Your task to perform on an android device: show emergency info Image 0: 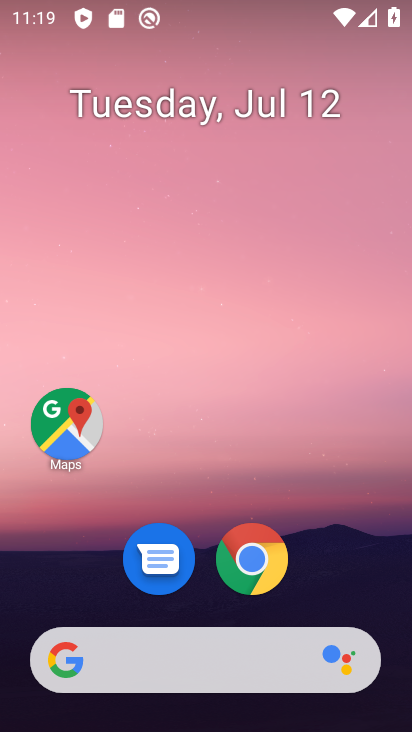
Step 0: drag from (284, 362) to (316, 252)
Your task to perform on an android device: show emergency info Image 1: 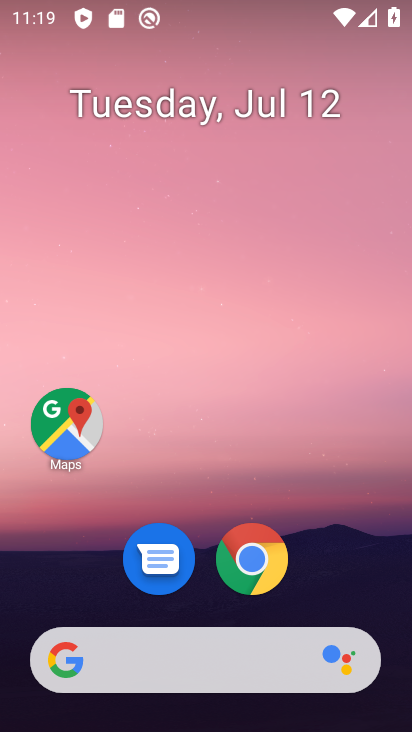
Step 1: drag from (220, 676) to (391, 185)
Your task to perform on an android device: show emergency info Image 2: 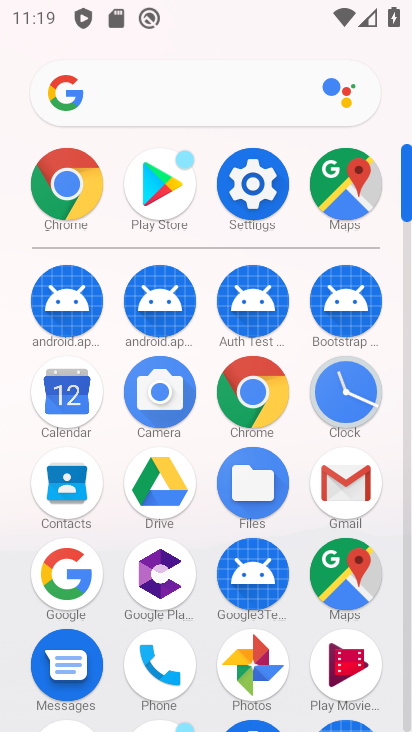
Step 2: click (239, 195)
Your task to perform on an android device: show emergency info Image 3: 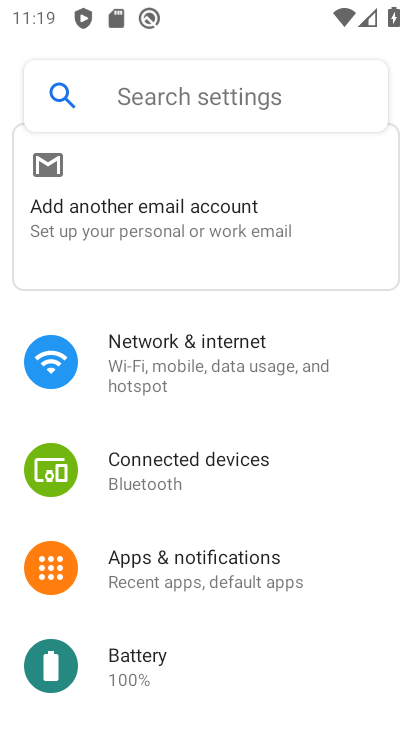
Step 3: drag from (164, 574) to (242, 178)
Your task to perform on an android device: show emergency info Image 4: 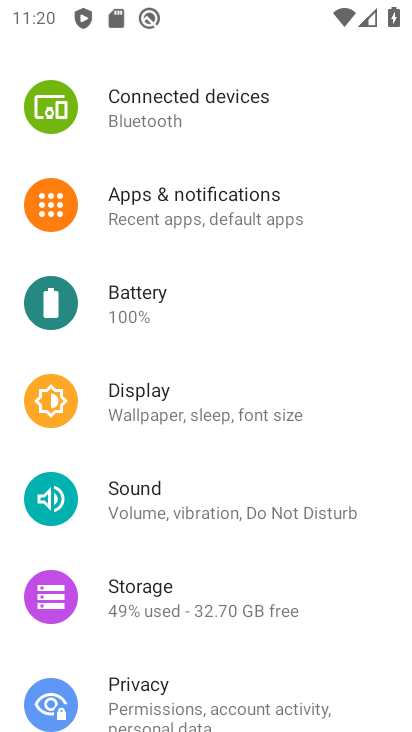
Step 4: drag from (255, 607) to (317, 269)
Your task to perform on an android device: show emergency info Image 5: 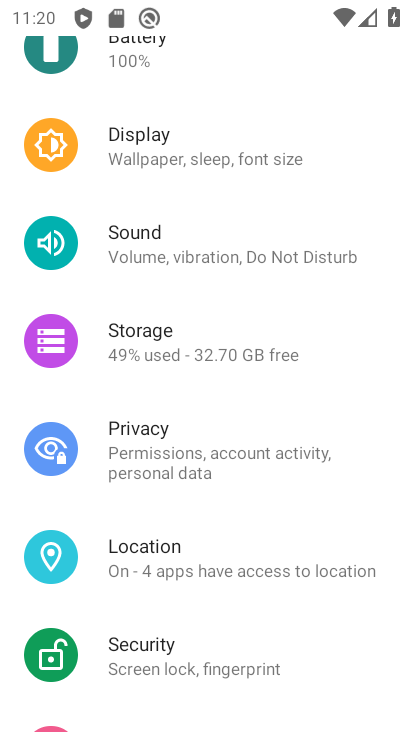
Step 5: drag from (207, 561) to (311, 191)
Your task to perform on an android device: show emergency info Image 6: 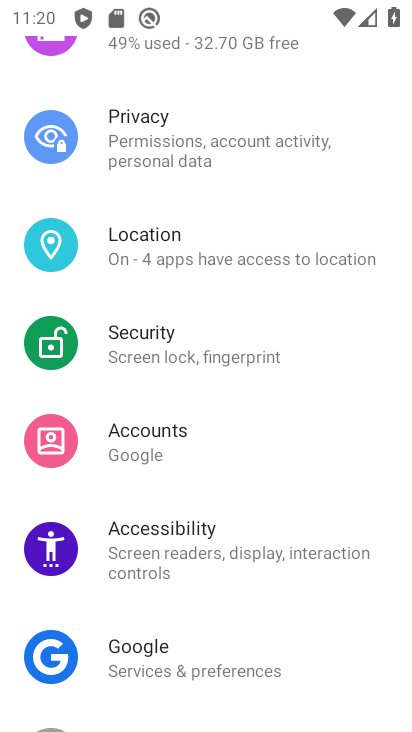
Step 6: drag from (217, 532) to (284, 234)
Your task to perform on an android device: show emergency info Image 7: 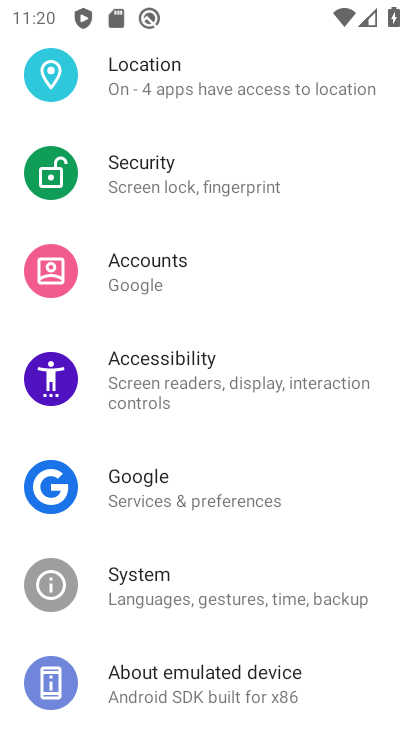
Step 7: drag from (185, 620) to (261, 164)
Your task to perform on an android device: show emergency info Image 8: 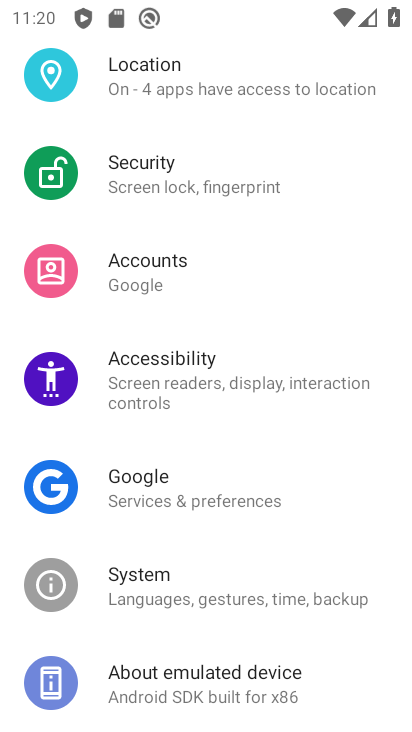
Step 8: click (220, 666)
Your task to perform on an android device: show emergency info Image 9: 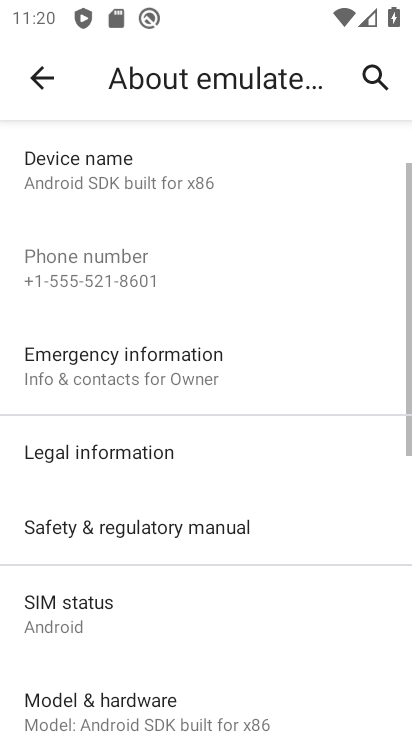
Step 9: drag from (204, 610) to (282, 210)
Your task to perform on an android device: show emergency info Image 10: 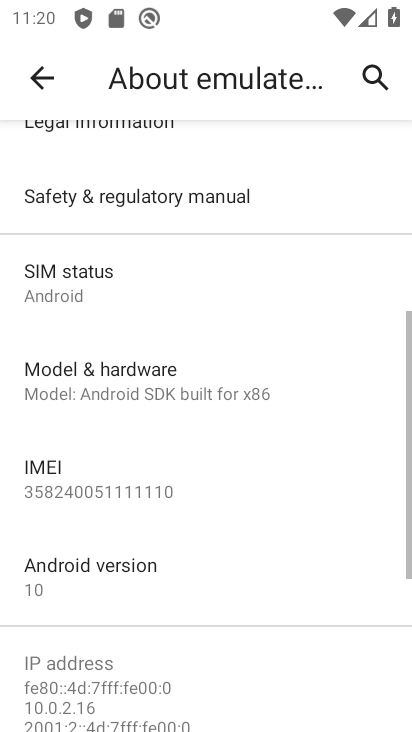
Step 10: drag from (166, 211) to (125, 550)
Your task to perform on an android device: show emergency info Image 11: 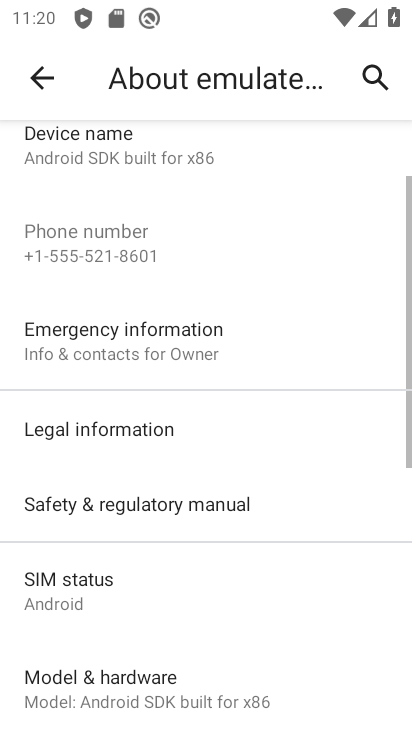
Step 11: click (171, 353)
Your task to perform on an android device: show emergency info Image 12: 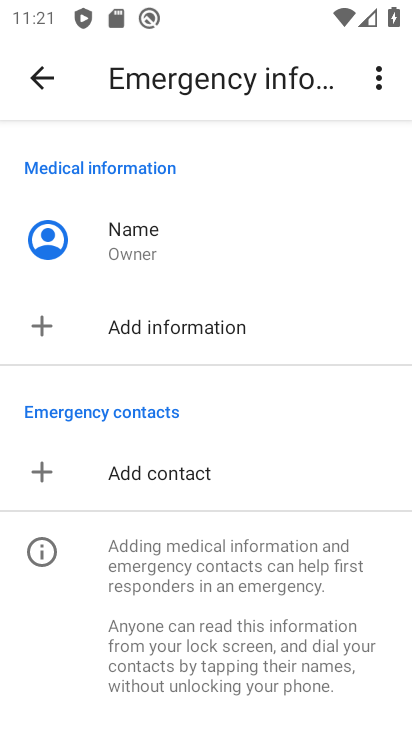
Step 12: task complete